Your task to perform on an android device: remove spam from my inbox in the gmail app Image 0: 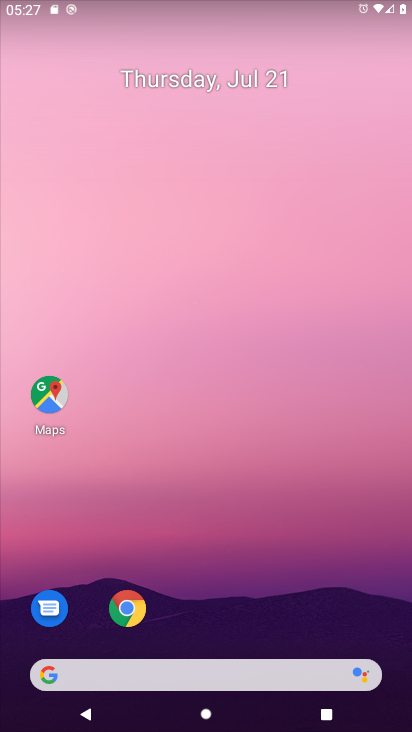
Step 0: drag from (307, 608) to (317, 2)
Your task to perform on an android device: remove spam from my inbox in the gmail app Image 1: 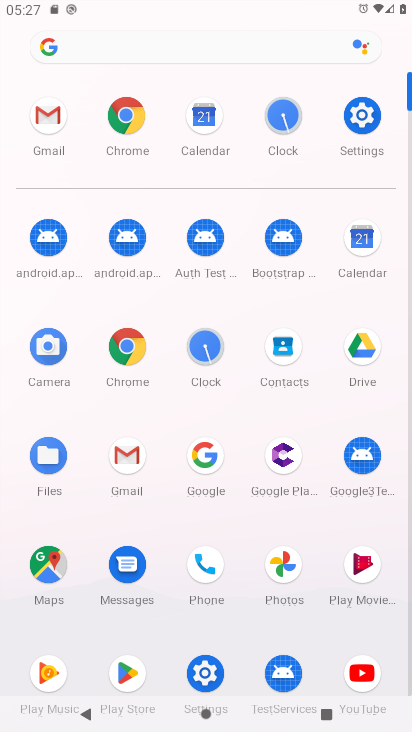
Step 1: click (121, 448)
Your task to perform on an android device: remove spam from my inbox in the gmail app Image 2: 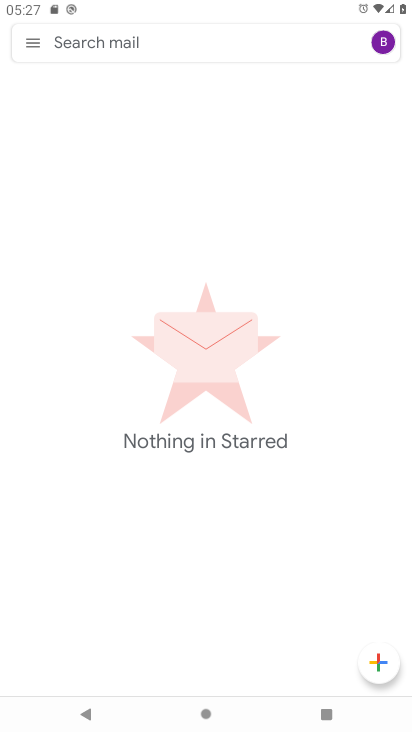
Step 2: click (24, 34)
Your task to perform on an android device: remove spam from my inbox in the gmail app Image 3: 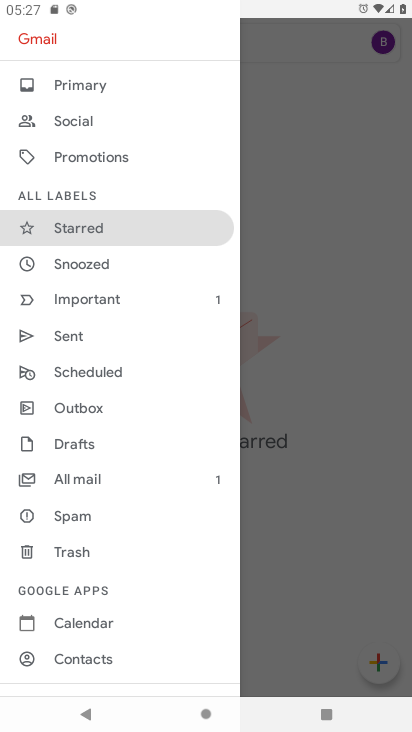
Step 3: click (75, 515)
Your task to perform on an android device: remove spam from my inbox in the gmail app Image 4: 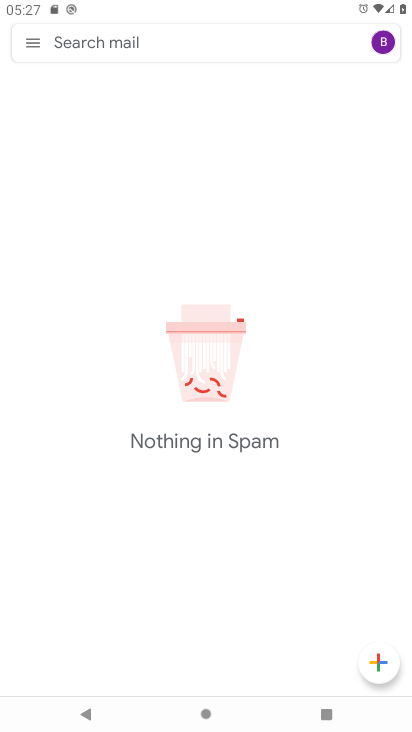
Step 4: task complete